Your task to perform on an android device: Go to location settings Image 0: 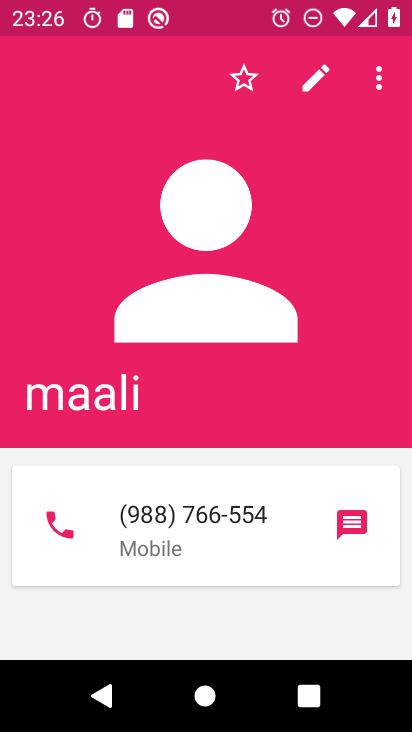
Step 0: press home button
Your task to perform on an android device: Go to location settings Image 1: 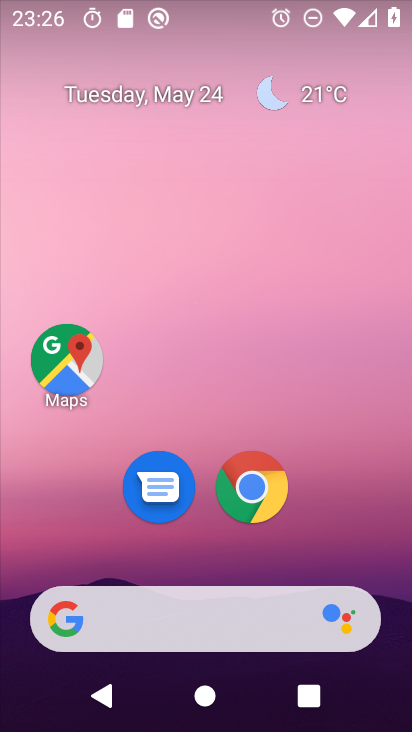
Step 1: drag from (333, 578) to (340, 22)
Your task to perform on an android device: Go to location settings Image 2: 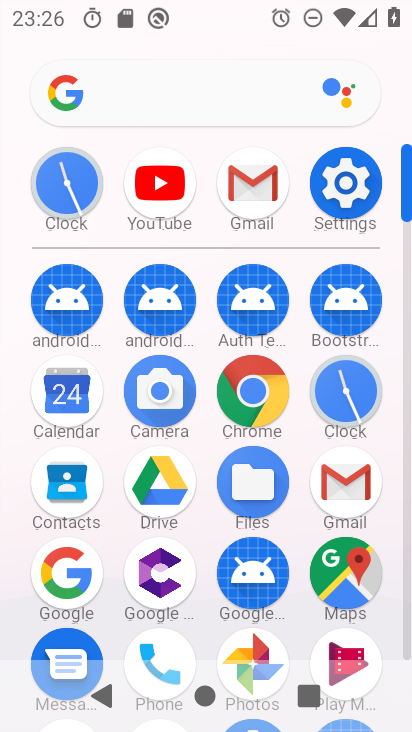
Step 2: click (339, 198)
Your task to perform on an android device: Go to location settings Image 3: 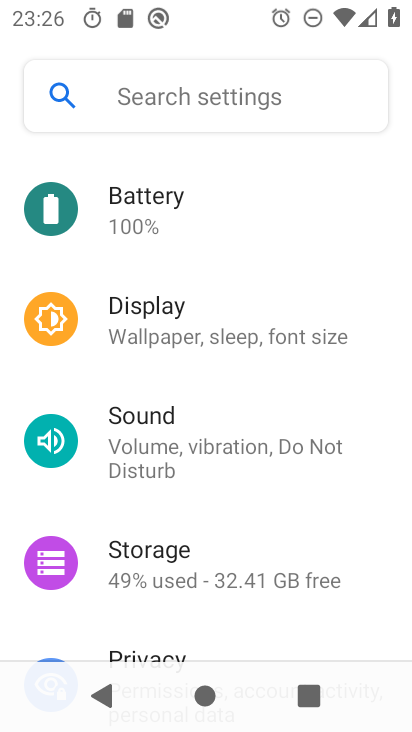
Step 3: drag from (314, 526) to (332, 201)
Your task to perform on an android device: Go to location settings Image 4: 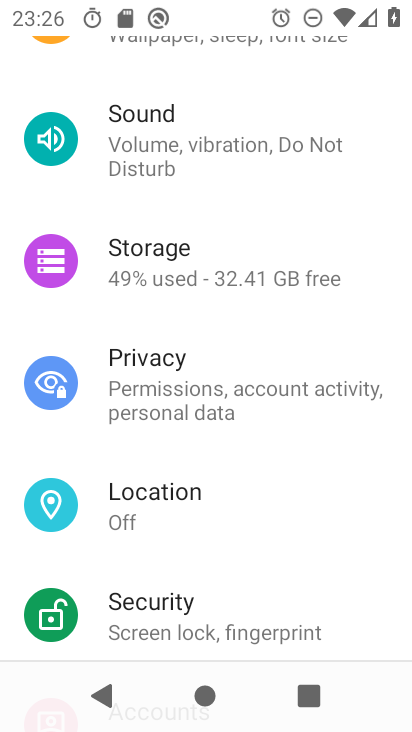
Step 4: click (134, 510)
Your task to perform on an android device: Go to location settings Image 5: 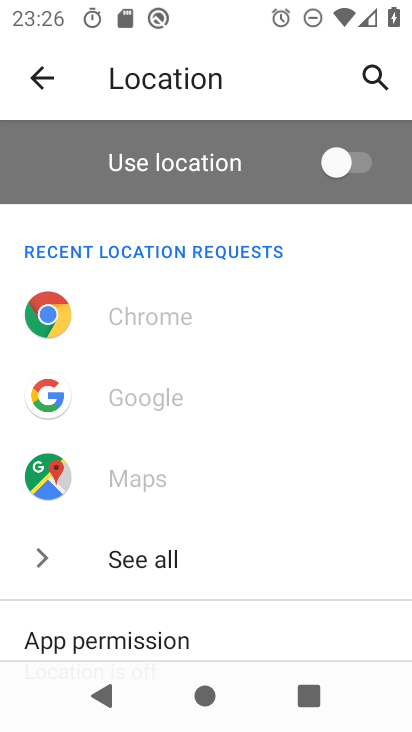
Step 5: task complete